Your task to perform on an android device: Turn off the flashlight Image 0: 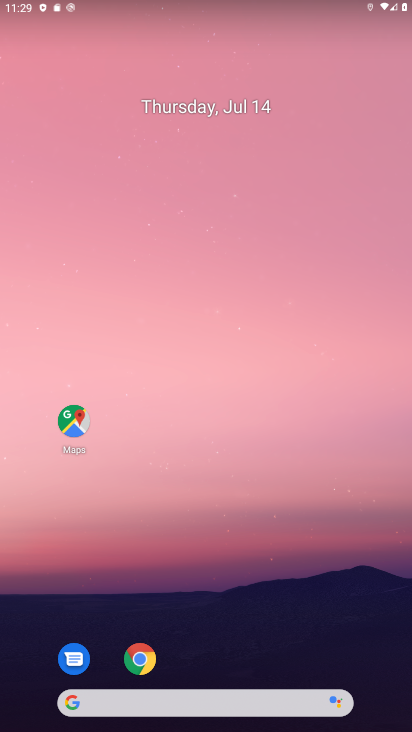
Step 0: drag from (302, 648) to (300, 281)
Your task to perform on an android device: Turn off the flashlight Image 1: 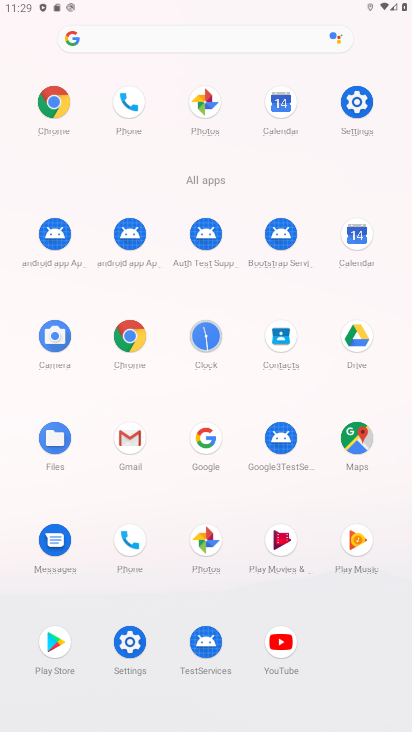
Step 1: click (356, 100)
Your task to perform on an android device: Turn off the flashlight Image 2: 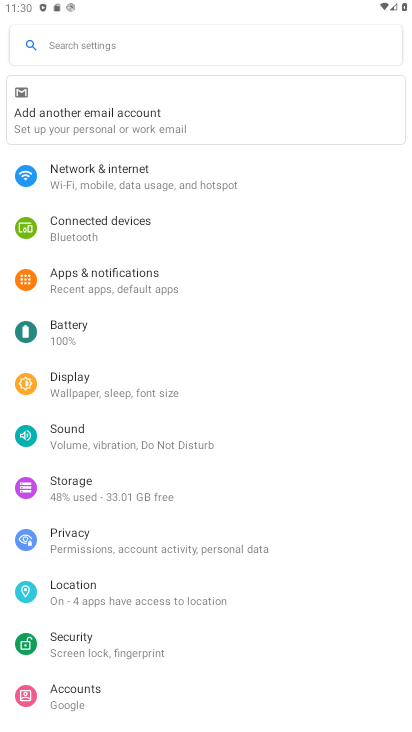
Step 2: task complete